Your task to perform on an android device: What is the recent news? Image 0: 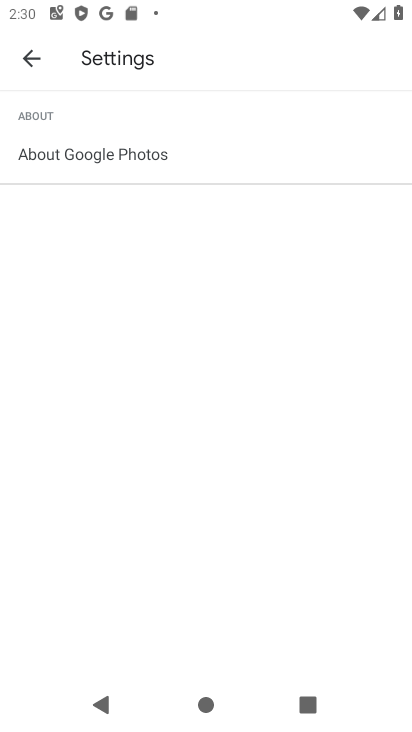
Step 0: press home button
Your task to perform on an android device: What is the recent news? Image 1: 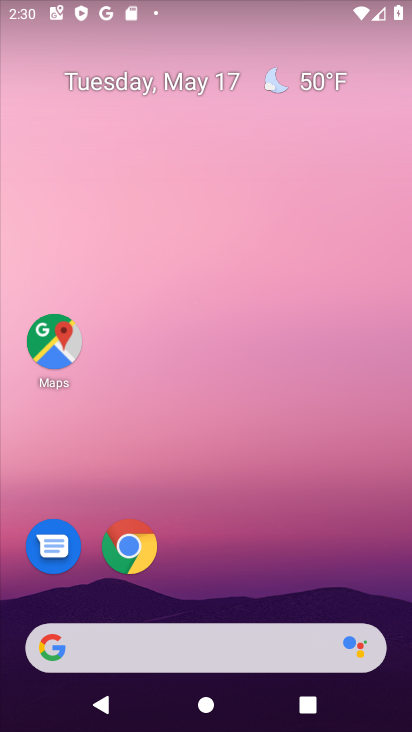
Step 1: click (242, 654)
Your task to perform on an android device: What is the recent news? Image 2: 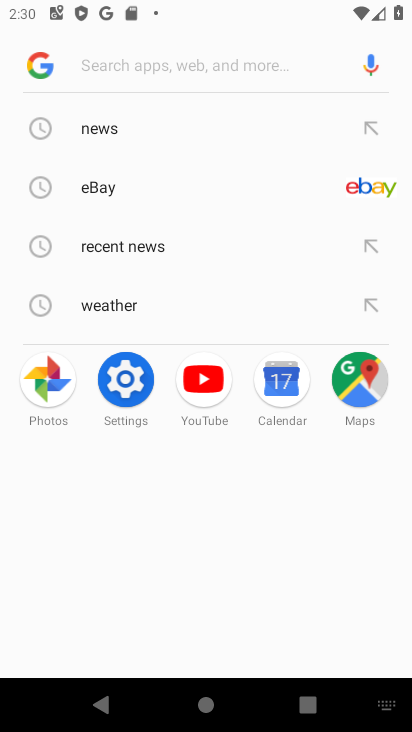
Step 2: type "recent news ?"
Your task to perform on an android device: What is the recent news? Image 3: 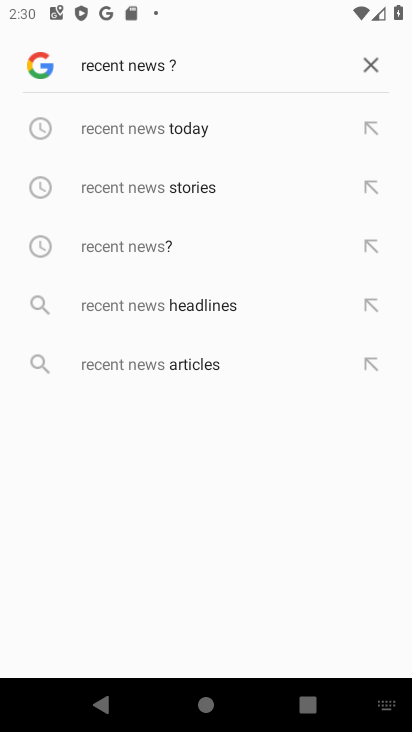
Step 3: click (155, 252)
Your task to perform on an android device: What is the recent news? Image 4: 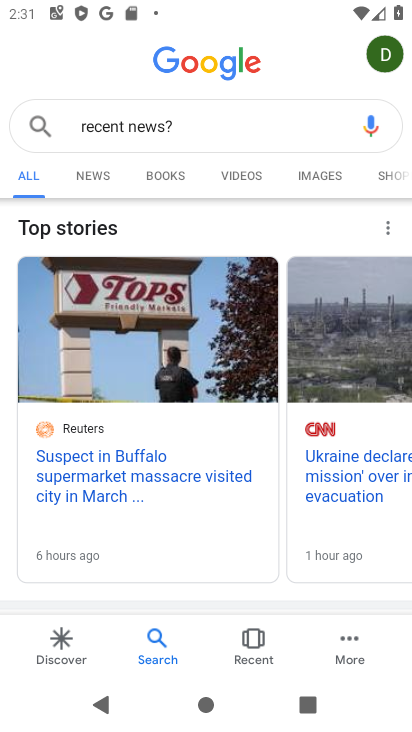
Step 4: task complete